Your task to perform on an android device: turn off priority inbox in the gmail app Image 0: 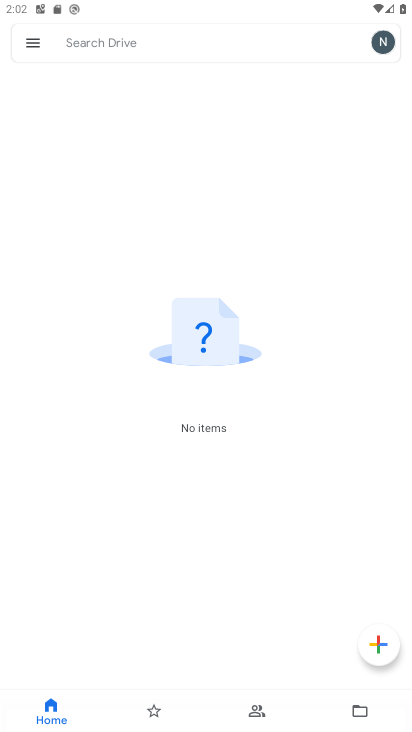
Step 0: press back button
Your task to perform on an android device: turn off priority inbox in the gmail app Image 1: 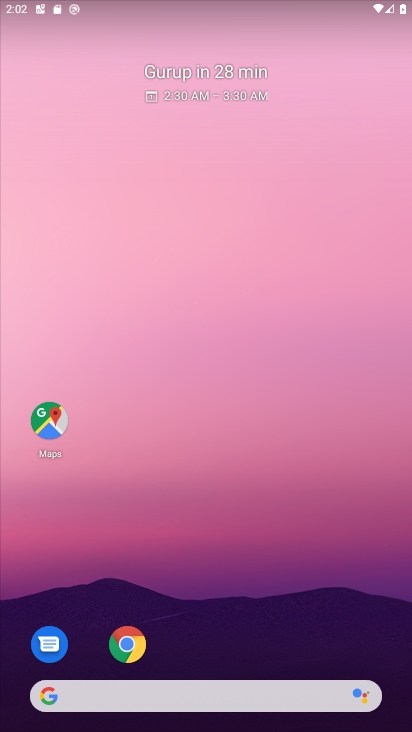
Step 1: drag from (256, 664) to (183, 129)
Your task to perform on an android device: turn off priority inbox in the gmail app Image 2: 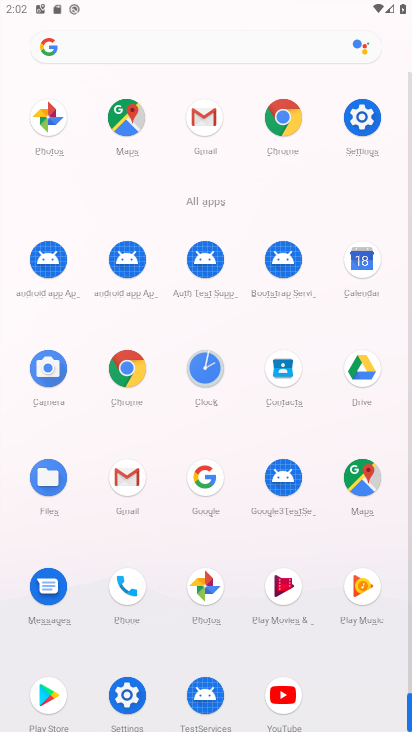
Step 2: click (137, 479)
Your task to perform on an android device: turn off priority inbox in the gmail app Image 3: 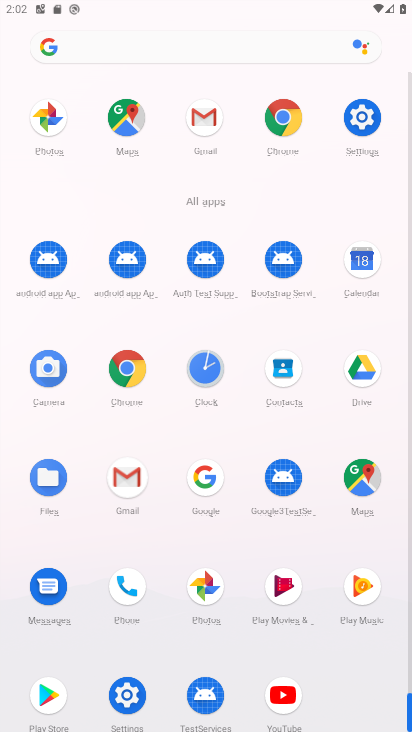
Step 3: click (133, 480)
Your task to perform on an android device: turn off priority inbox in the gmail app Image 4: 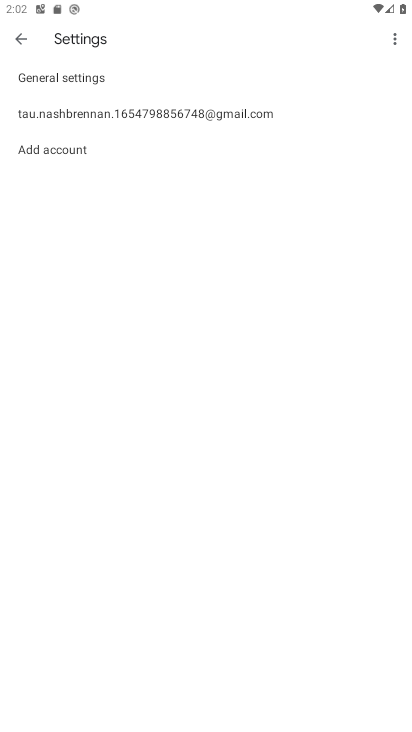
Step 4: click (91, 124)
Your task to perform on an android device: turn off priority inbox in the gmail app Image 5: 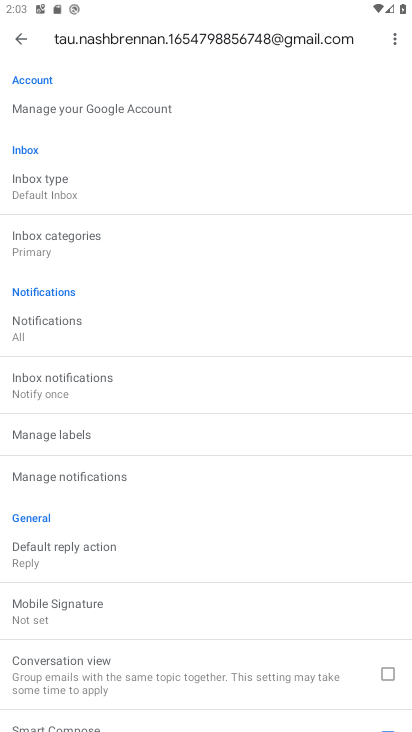
Step 5: click (41, 186)
Your task to perform on an android device: turn off priority inbox in the gmail app Image 6: 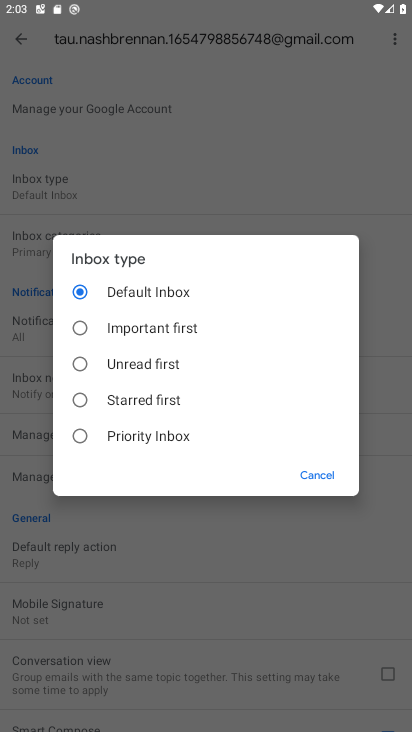
Step 6: click (82, 438)
Your task to perform on an android device: turn off priority inbox in the gmail app Image 7: 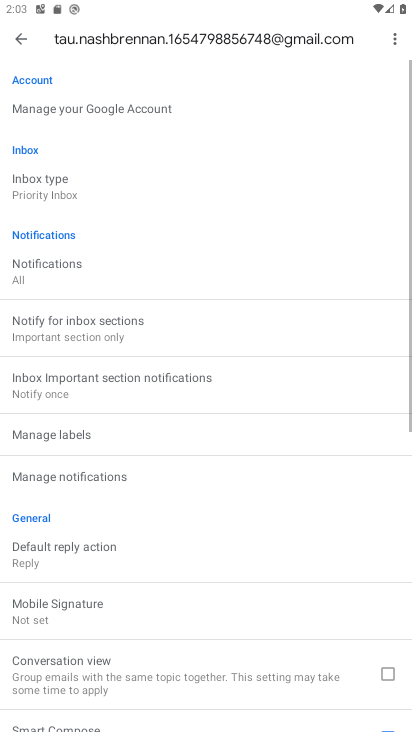
Step 7: task complete